Your task to perform on an android device: star an email in the gmail app Image 0: 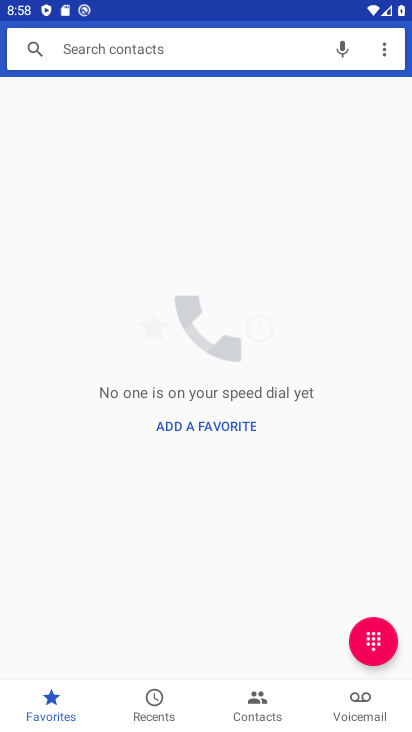
Step 0: press home button
Your task to perform on an android device: star an email in the gmail app Image 1: 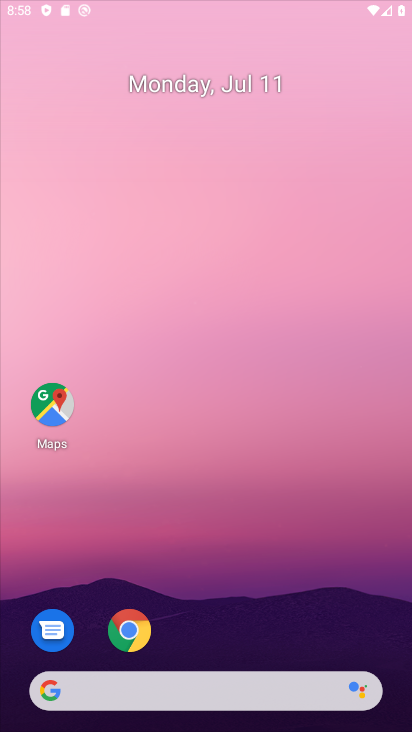
Step 1: drag from (277, 663) to (290, 24)
Your task to perform on an android device: star an email in the gmail app Image 2: 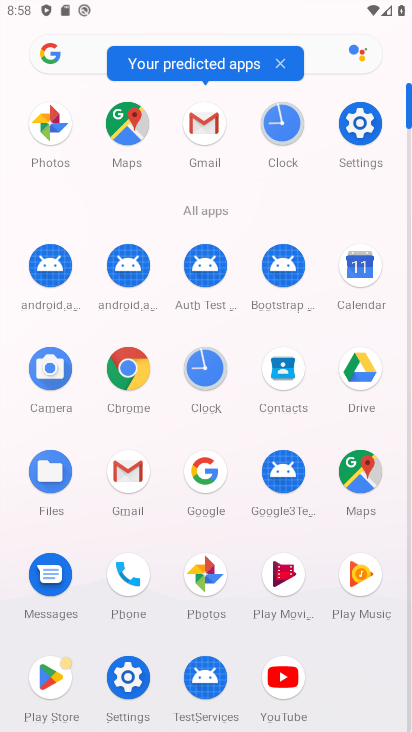
Step 2: click (128, 486)
Your task to perform on an android device: star an email in the gmail app Image 3: 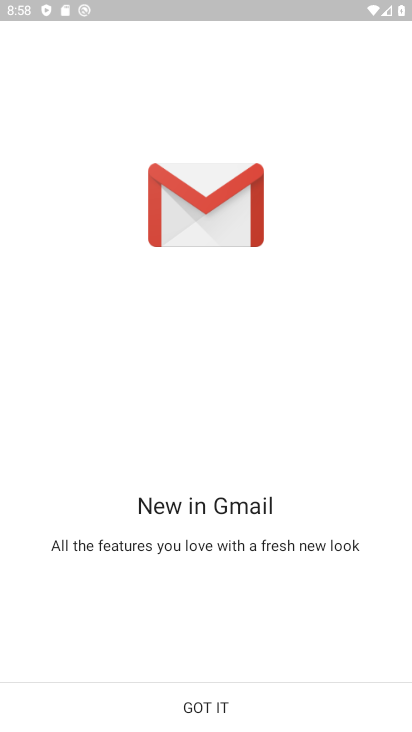
Step 3: click (276, 724)
Your task to perform on an android device: star an email in the gmail app Image 4: 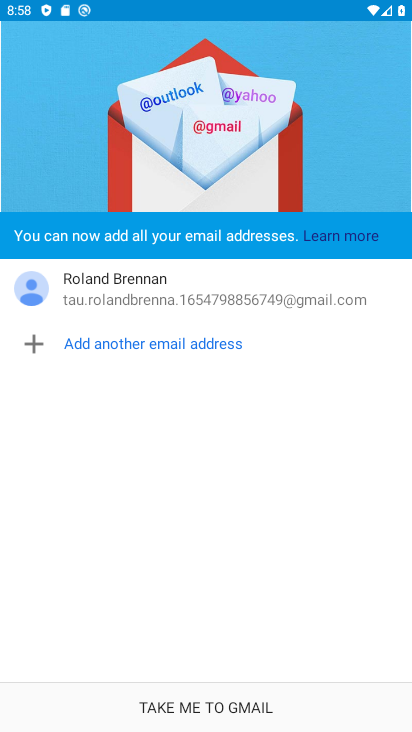
Step 4: click (276, 724)
Your task to perform on an android device: star an email in the gmail app Image 5: 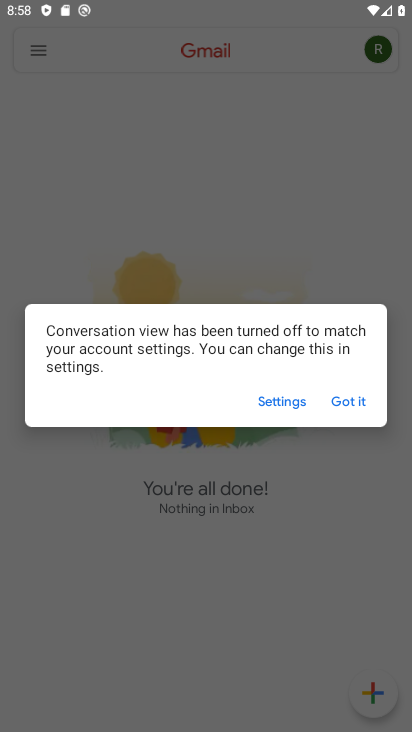
Step 5: click (338, 399)
Your task to perform on an android device: star an email in the gmail app Image 6: 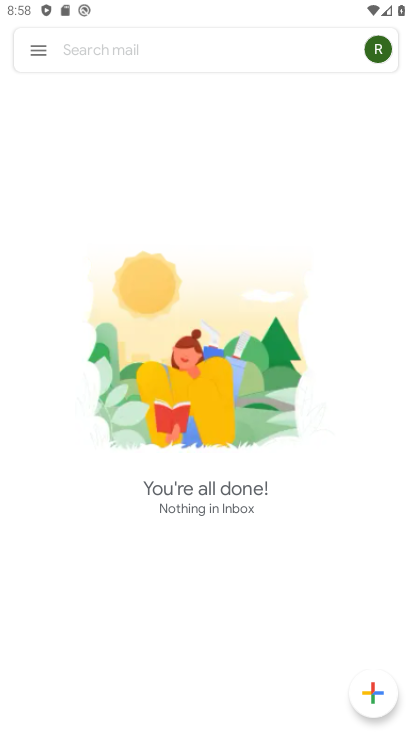
Step 6: click (37, 46)
Your task to perform on an android device: star an email in the gmail app Image 7: 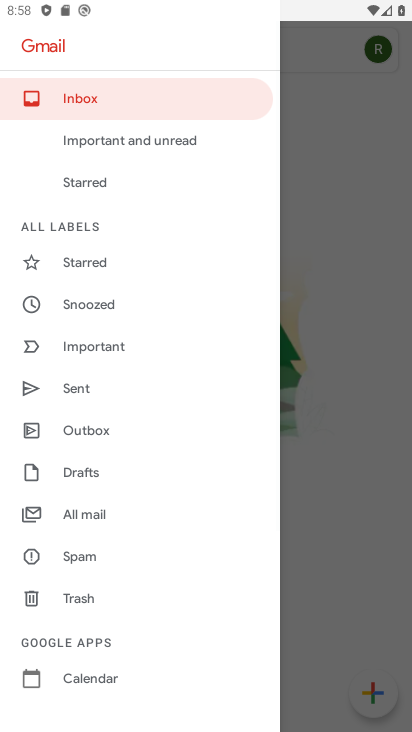
Step 7: click (119, 255)
Your task to perform on an android device: star an email in the gmail app Image 8: 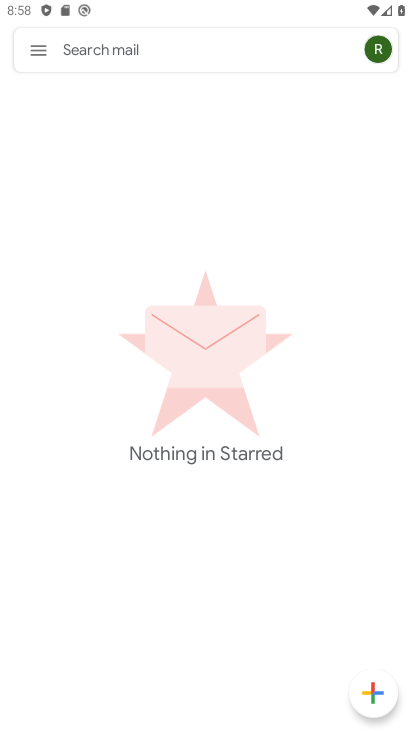
Step 8: task complete